Your task to perform on an android device: Play the last video I watched on Youtube Image 0: 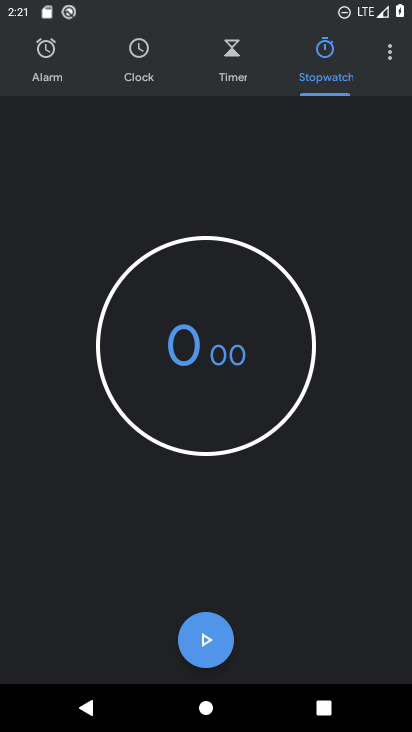
Step 0: click (63, 350)
Your task to perform on an android device: Play the last video I watched on Youtube Image 1: 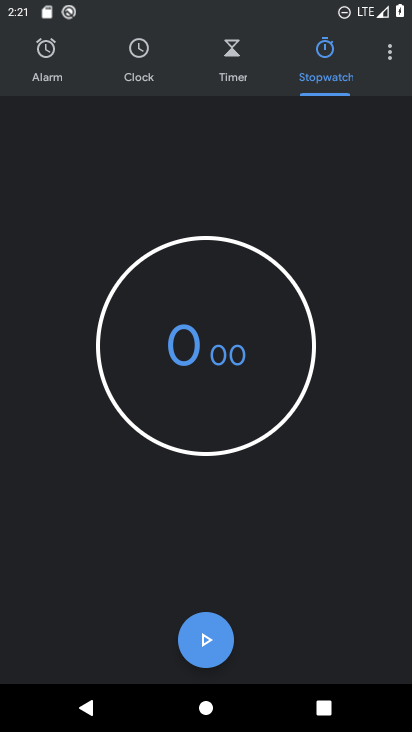
Step 1: press home button
Your task to perform on an android device: Play the last video I watched on Youtube Image 2: 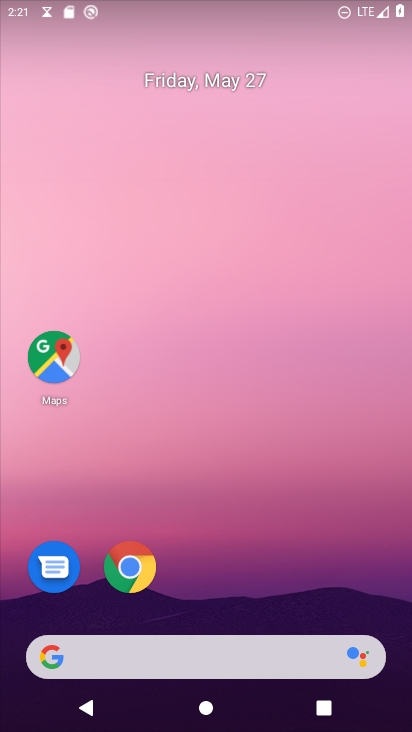
Step 2: drag from (208, 612) to (206, 209)
Your task to perform on an android device: Play the last video I watched on Youtube Image 3: 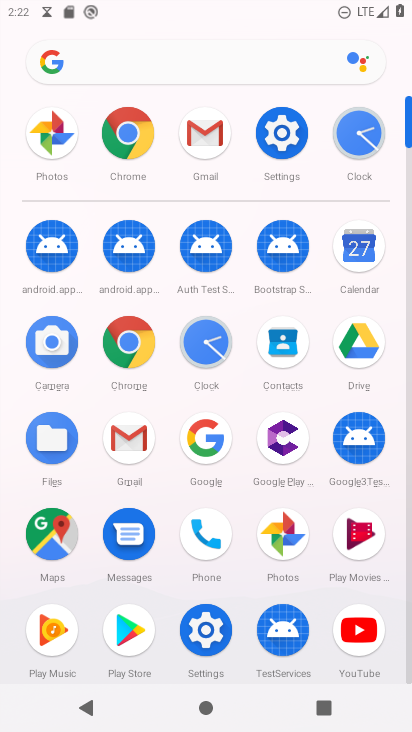
Step 3: click (359, 633)
Your task to perform on an android device: Play the last video I watched on Youtube Image 4: 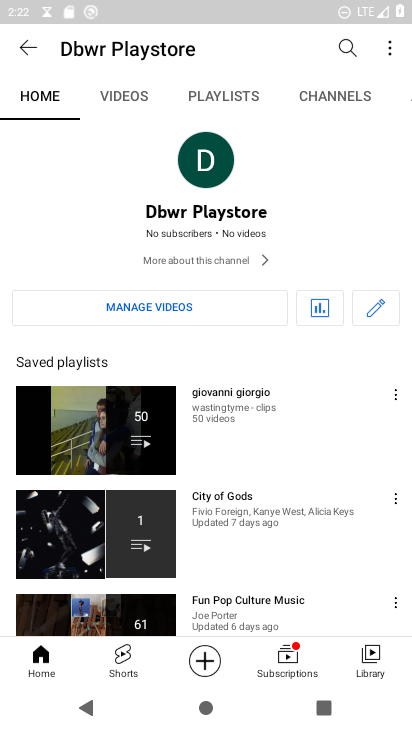
Step 4: click (371, 660)
Your task to perform on an android device: Play the last video I watched on Youtube Image 5: 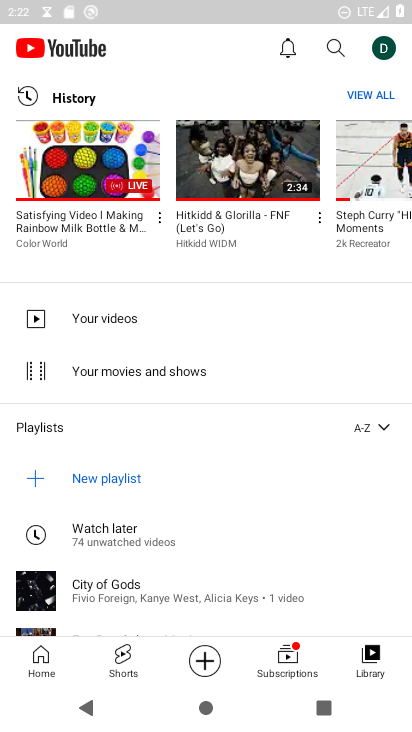
Step 5: click (95, 179)
Your task to perform on an android device: Play the last video I watched on Youtube Image 6: 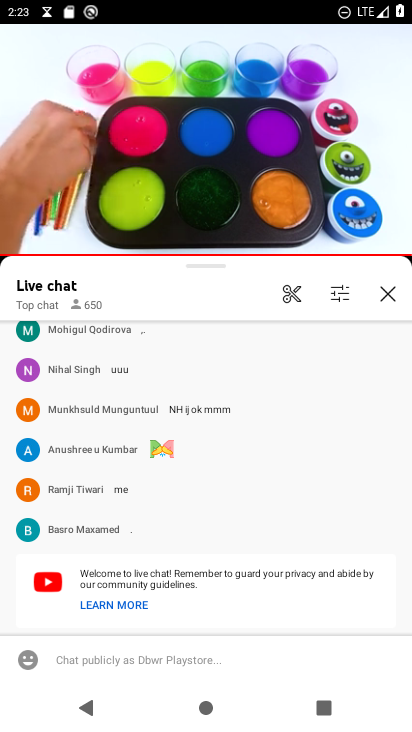
Step 6: task complete